Your task to perform on an android device: turn on airplane mode Image 0: 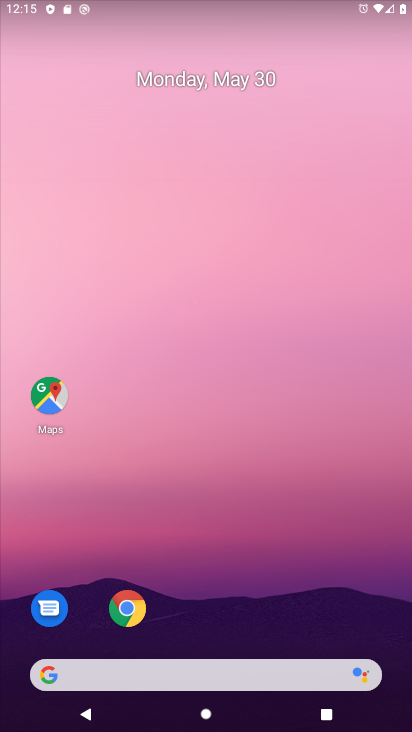
Step 0: drag from (214, 654) to (366, 317)
Your task to perform on an android device: turn on airplane mode Image 1: 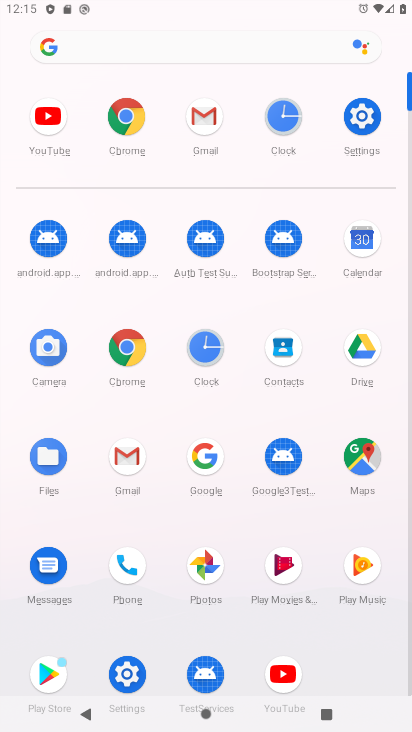
Step 1: click (133, 673)
Your task to perform on an android device: turn on airplane mode Image 2: 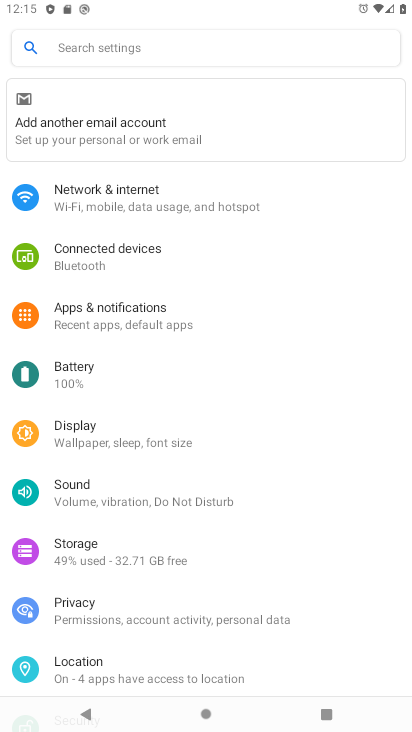
Step 2: click (143, 181)
Your task to perform on an android device: turn on airplane mode Image 3: 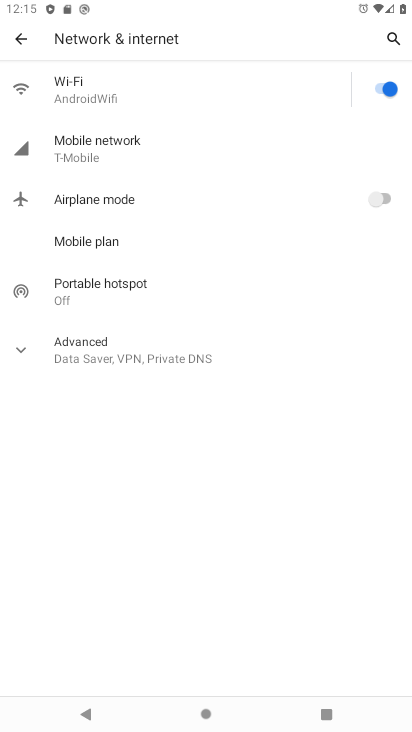
Step 3: click (385, 198)
Your task to perform on an android device: turn on airplane mode Image 4: 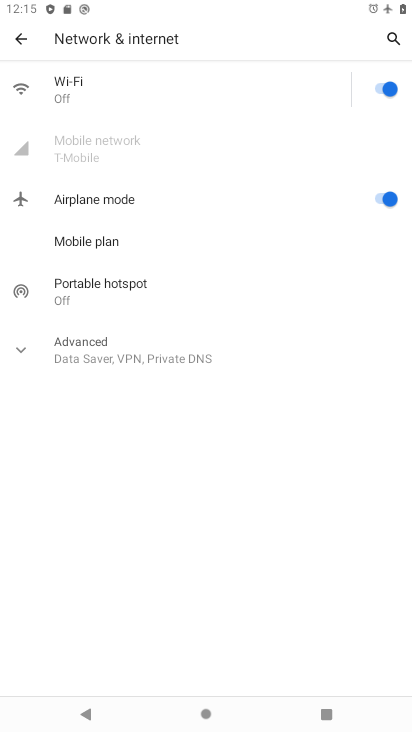
Step 4: task complete